Your task to perform on an android device: refresh tabs in the chrome app Image 0: 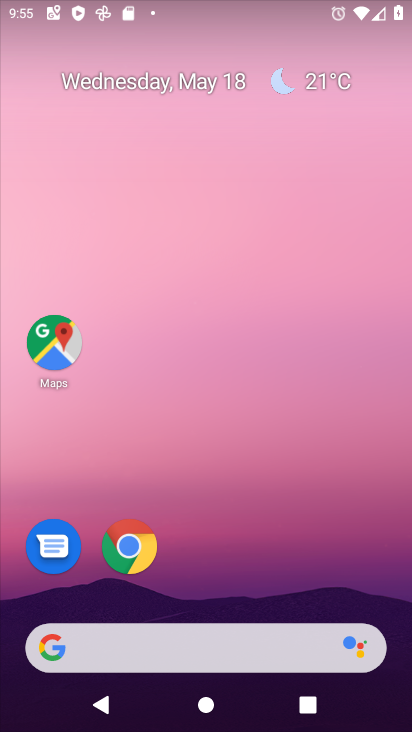
Step 0: drag from (390, 625) to (320, 212)
Your task to perform on an android device: refresh tabs in the chrome app Image 1: 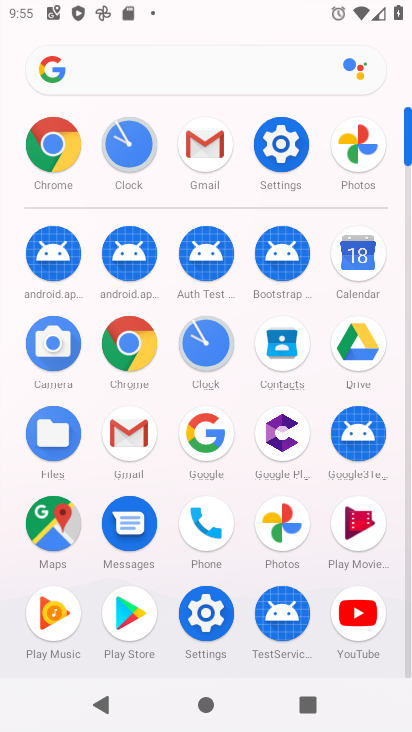
Step 1: click (54, 144)
Your task to perform on an android device: refresh tabs in the chrome app Image 2: 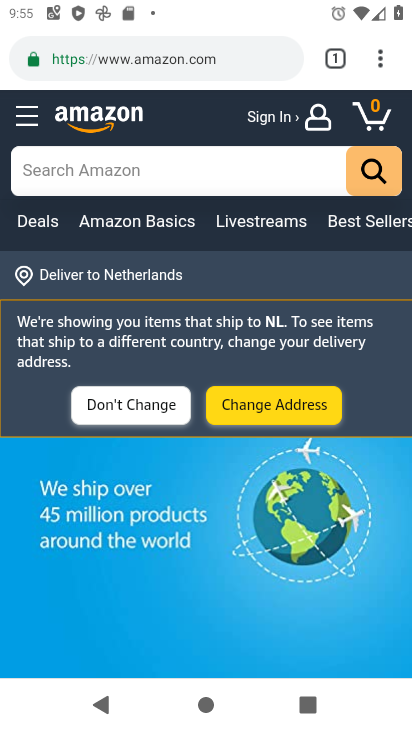
Step 2: press back button
Your task to perform on an android device: refresh tabs in the chrome app Image 3: 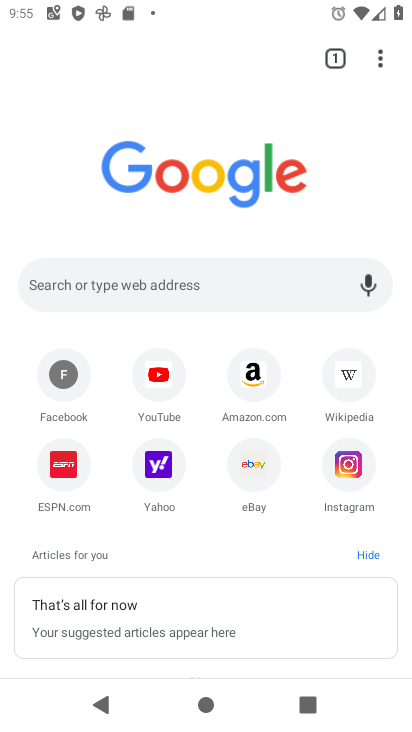
Step 3: click (377, 55)
Your task to perform on an android device: refresh tabs in the chrome app Image 4: 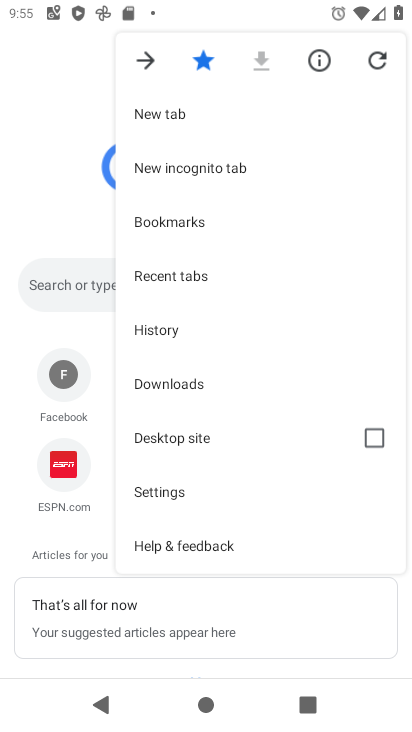
Step 4: click (375, 59)
Your task to perform on an android device: refresh tabs in the chrome app Image 5: 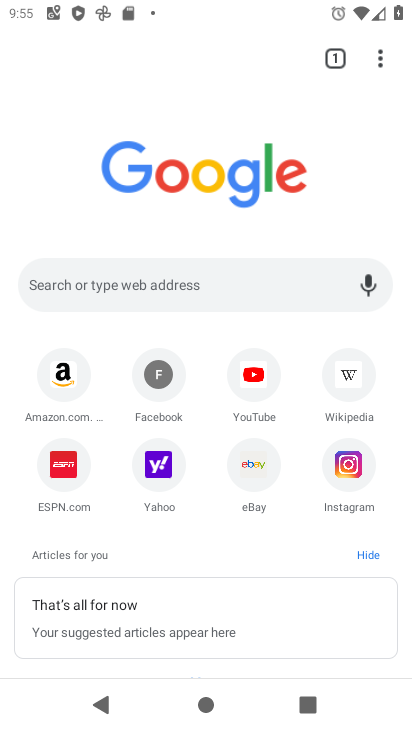
Step 5: task complete